Your task to perform on an android device: stop showing notifications on the lock screen Image 0: 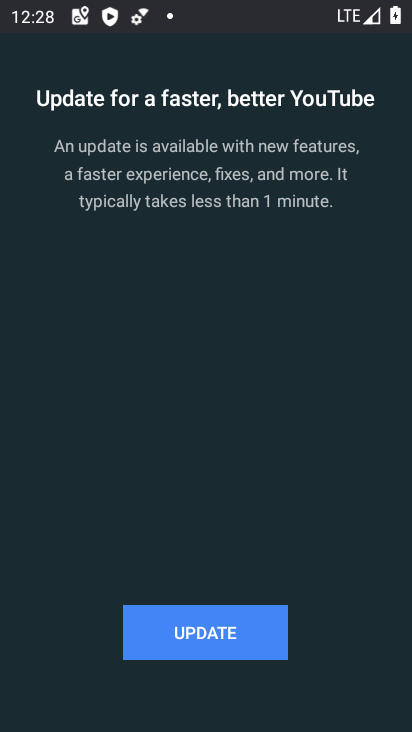
Step 0: press home button
Your task to perform on an android device: stop showing notifications on the lock screen Image 1: 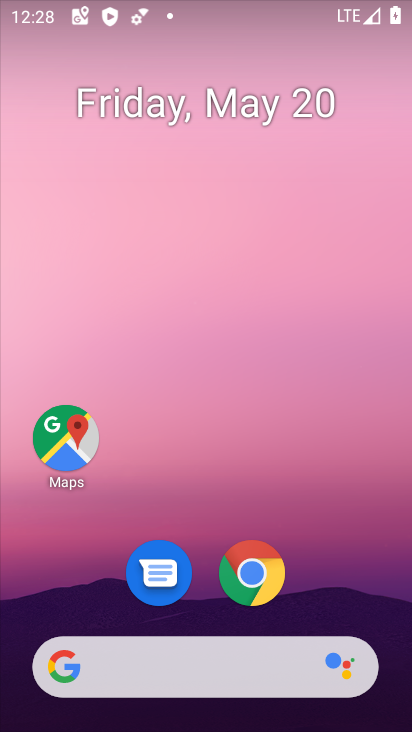
Step 1: drag from (218, 607) to (355, 5)
Your task to perform on an android device: stop showing notifications on the lock screen Image 2: 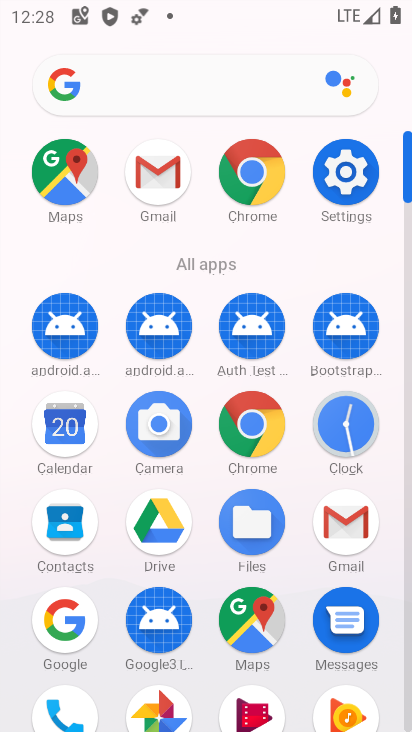
Step 2: click (348, 225)
Your task to perform on an android device: stop showing notifications on the lock screen Image 3: 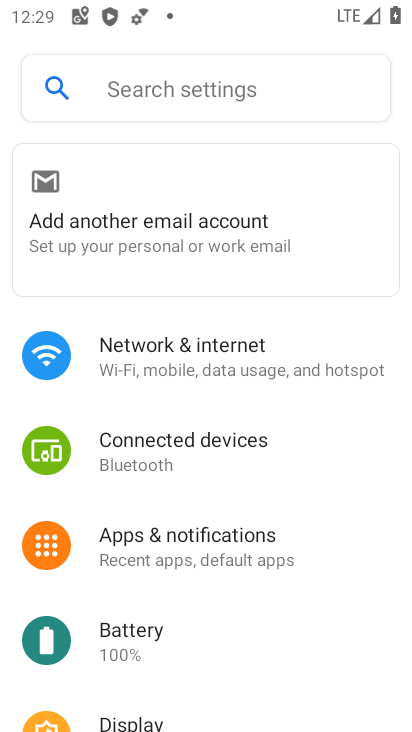
Step 3: click (205, 557)
Your task to perform on an android device: stop showing notifications on the lock screen Image 4: 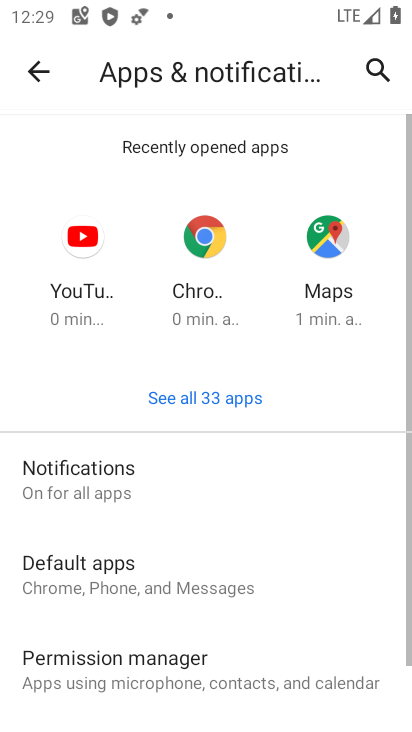
Step 4: click (140, 471)
Your task to perform on an android device: stop showing notifications on the lock screen Image 5: 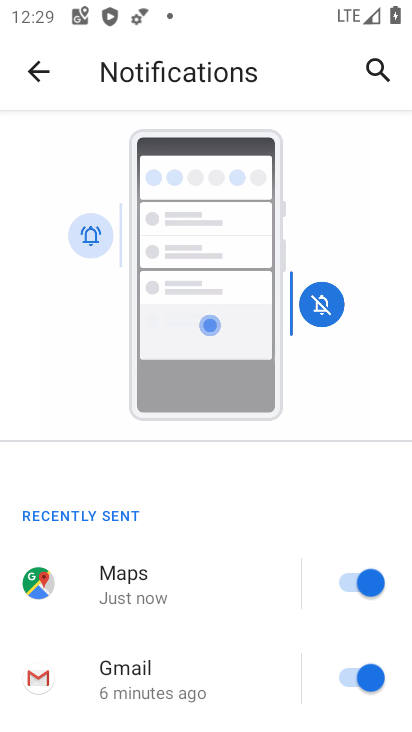
Step 5: drag from (138, 587) to (210, 201)
Your task to perform on an android device: stop showing notifications on the lock screen Image 6: 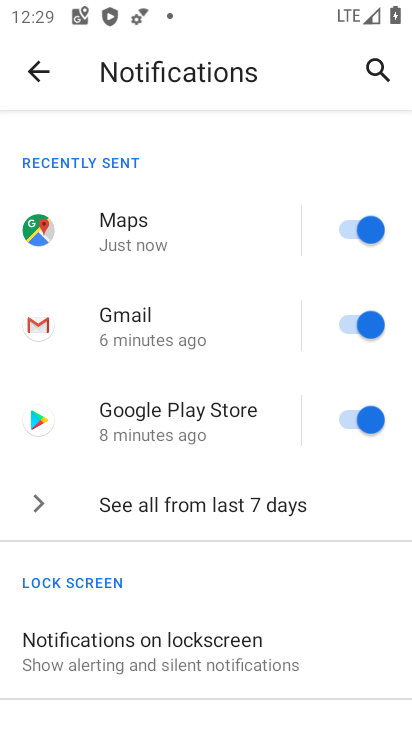
Step 6: click (166, 646)
Your task to perform on an android device: stop showing notifications on the lock screen Image 7: 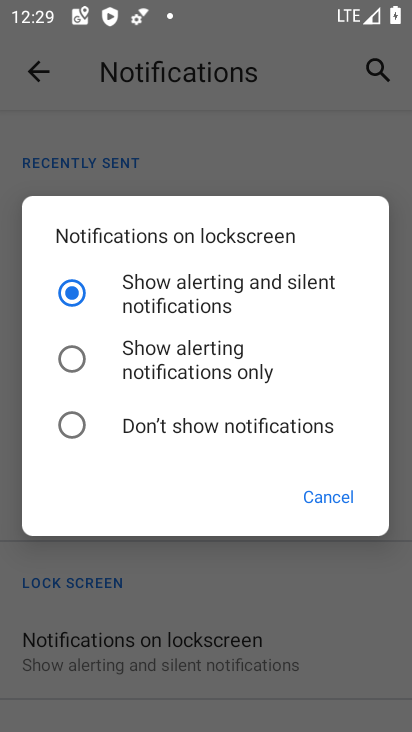
Step 7: click (152, 436)
Your task to perform on an android device: stop showing notifications on the lock screen Image 8: 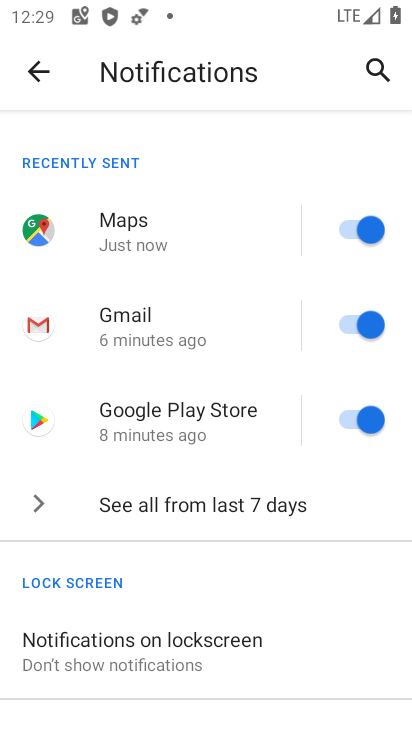
Step 8: task complete